Your task to perform on an android device: turn off javascript in the chrome app Image 0: 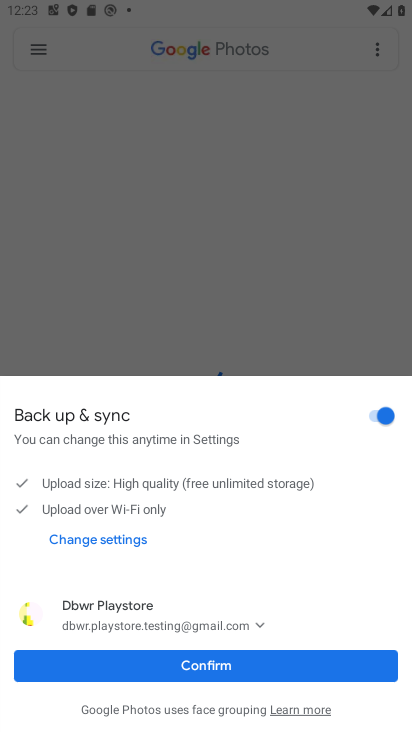
Step 0: press home button
Your task to perform on an android device: turn off javascript in the chrome app Image 1: 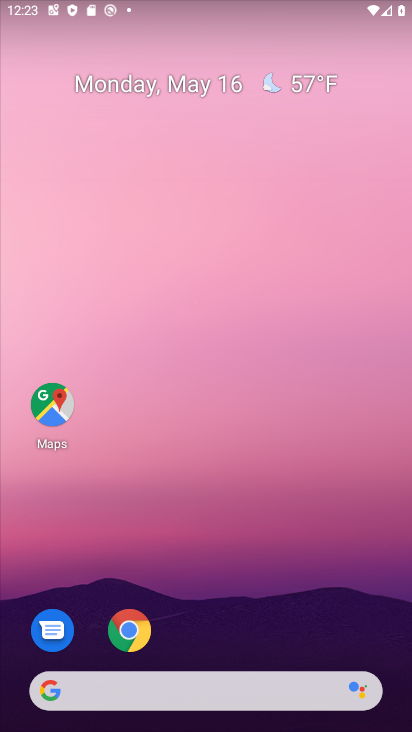
Step 1: click (124, 639)
Your task to perform on an android device: turn off javascript in the chrome app Image 2: 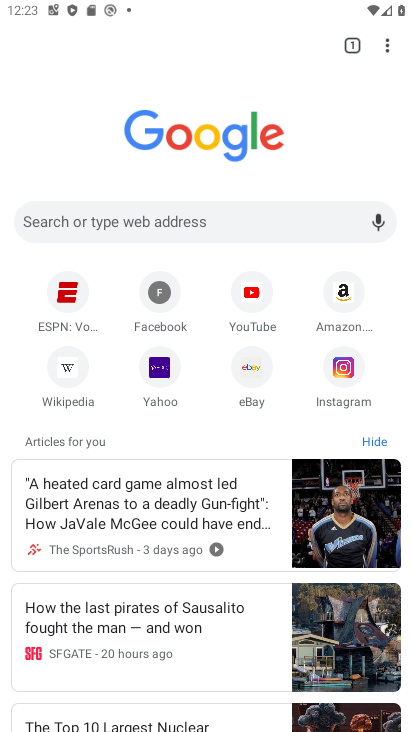
Step 2: click (388, 42)
Your task to perform on an android device: turn off javascript in the chrome app Image 3: 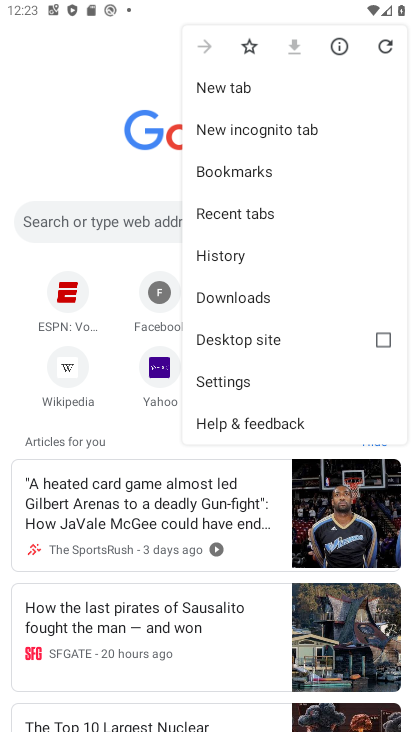
Step 3: click (209, 387)
Your task to perform on an android device: turn off javascript in the chrome app Image 4: 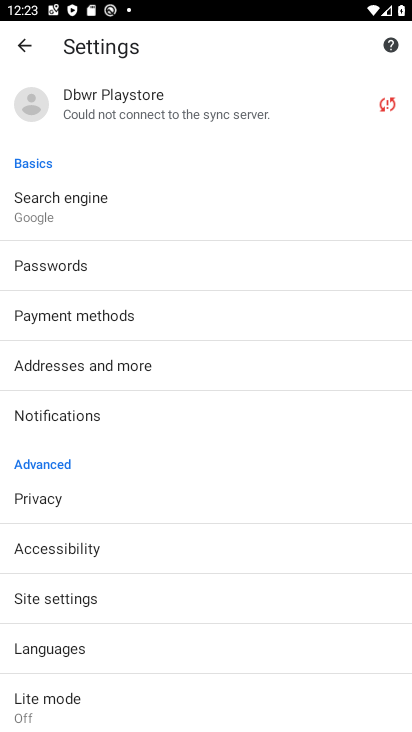
Step 4: click (82, 611)
Your task to perform on an android device: turn off javascript in the chrome app Image 5: 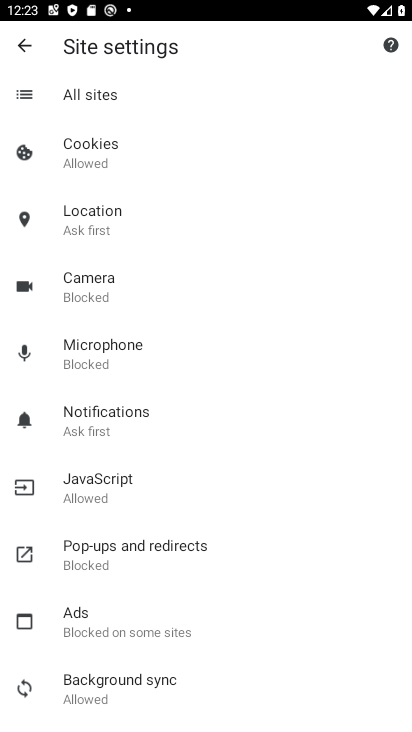
Step 5: click (108, 489)
Your task to perform on an android device: turn off javascript in the chrome app Image 6: 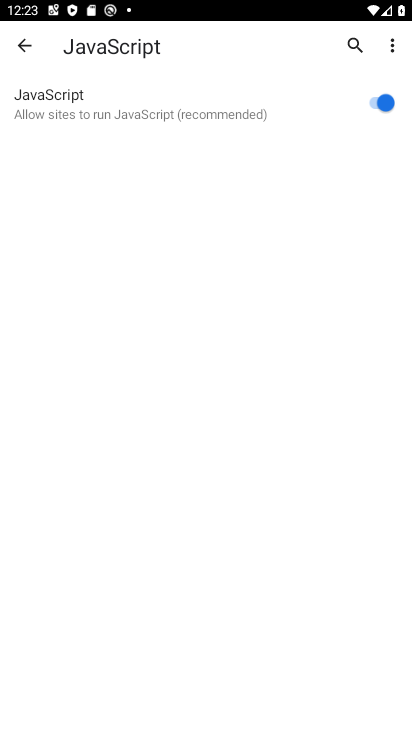
Step 6: click (379, 102)
Your task to perform on an android device: turn off javascript in the chrome app Image 7: 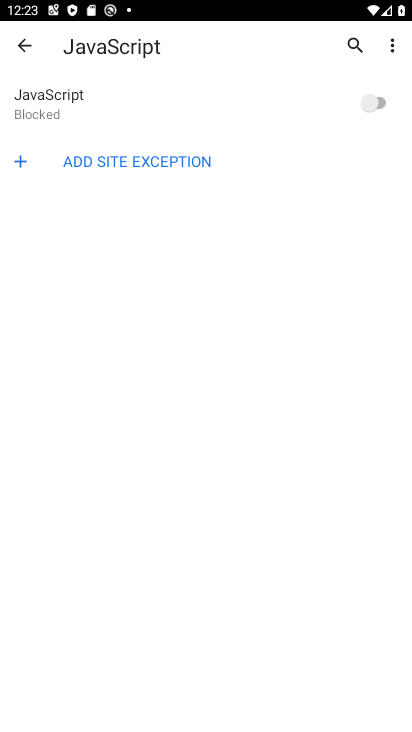
Step 7: task complete